Your task to perform on an android device: Go to Wikipedia Image 0: 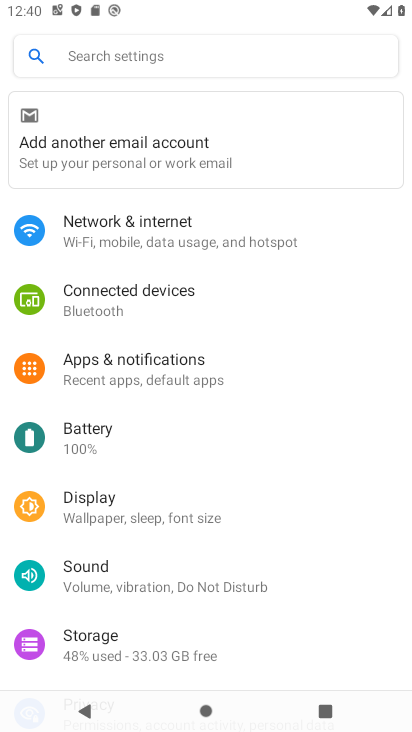
Step 0: press home button
Your task to perform on an android device: Go to Wikipedia Image 1: 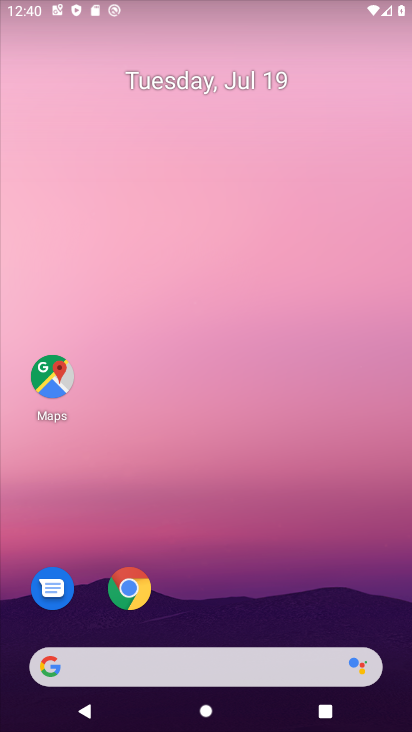
Step 1: drag from (323, 623) to (388, 1)
Your task to perform on an android device: Go to Wikipedia Image 2: 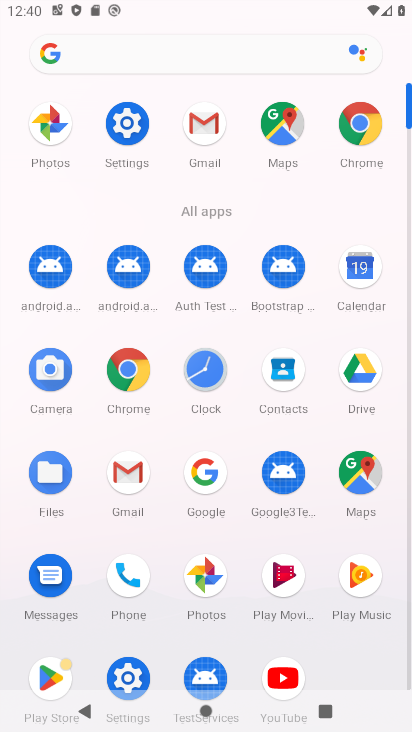
Step 2: click (362, 120)
Your task to perform on an android device: Go to Wikipedia Image 3: 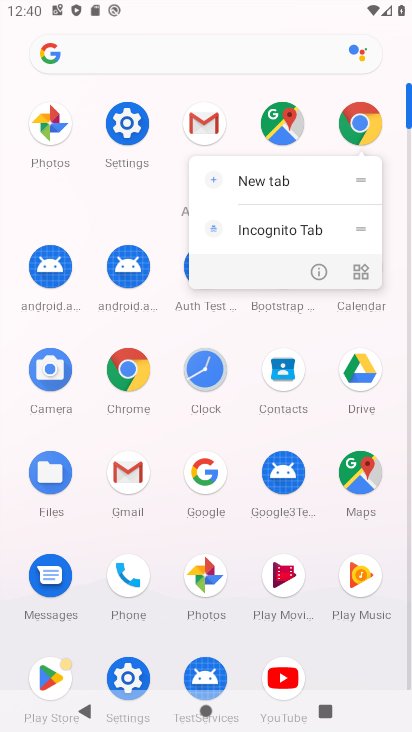
Step 3: click (362, 120)
Your task to perform on an android device: Go to Wikipedia Image 4: 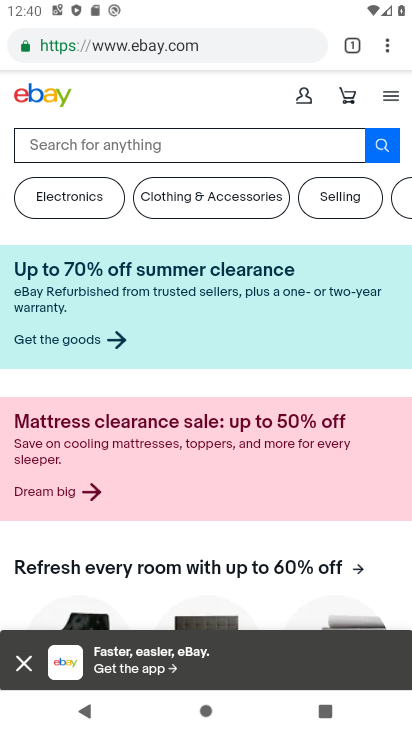
Step 4: press back button
Your task to perform on an android device: Go to Wikipedia Image 5: 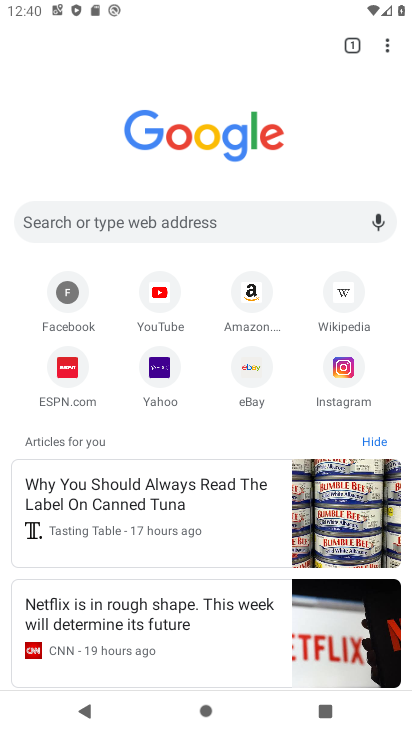
Step 5: click (339, 302)
Your task to perform on an android device: Go to Wikipedia Image 6: 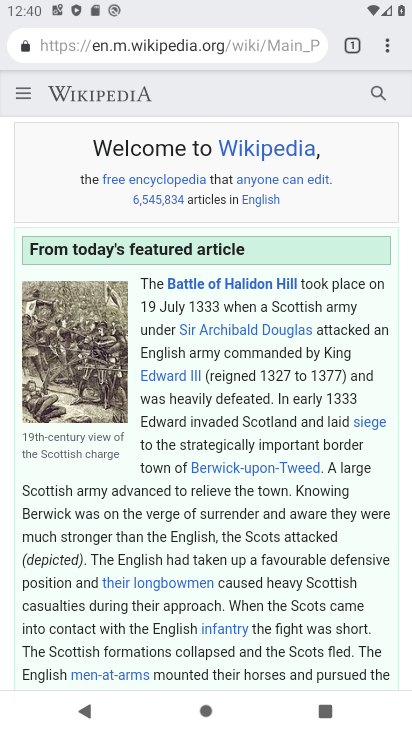
Step 6: task complete